Your task to perform on an android device: allow notifications from all sites in the chrome app Image 0: 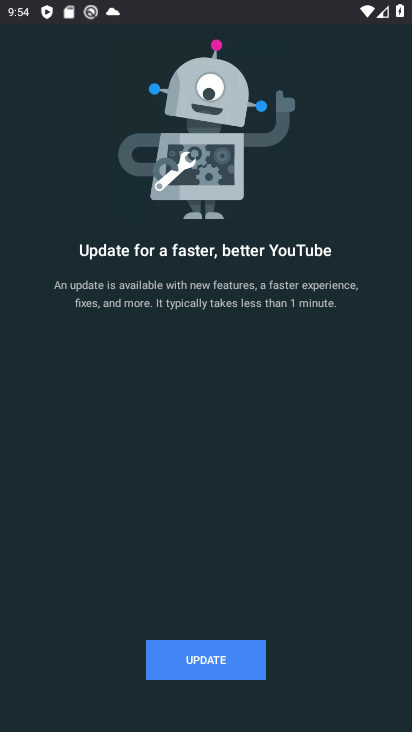
Step 0: press home button
Your task to perform on an android device: allow notifications from all sites in the chrome app Image 1: 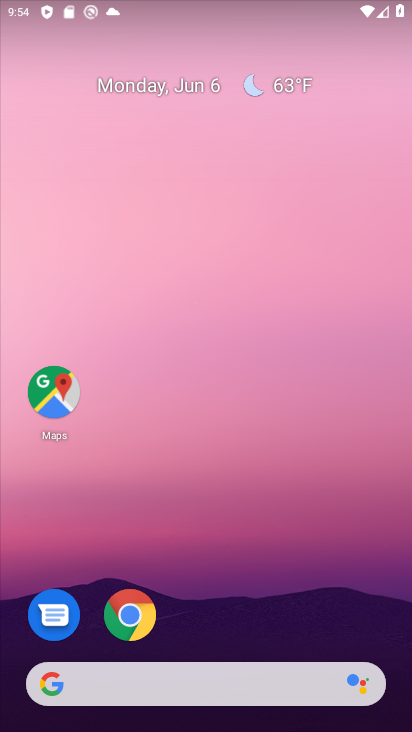
Step 1: click (126, 612)
Your task to perform on an android device: allow notifications from all sites in the chrome app Image 2: 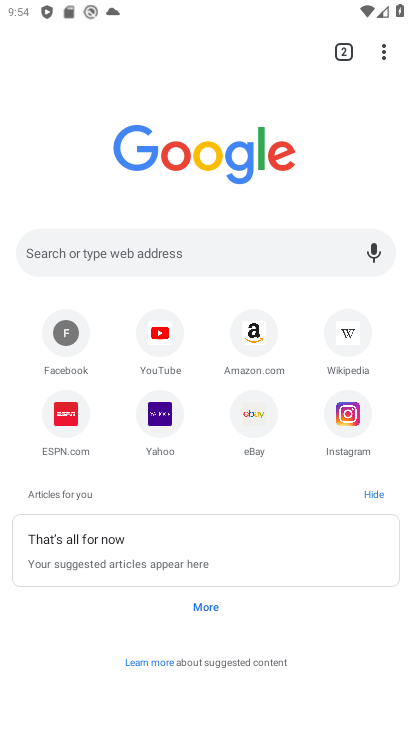
Step 2: click (383, 52)
Your task to perform on an android device: allow notifications from all sites in the chrome app Image 3: 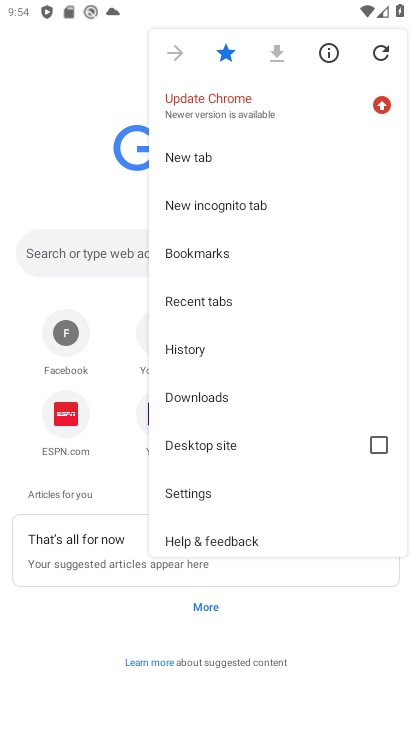
Step 3: click (221, 488)
Your task to perform on an android device: allow notifications from all sites in the chrome app Image 4: 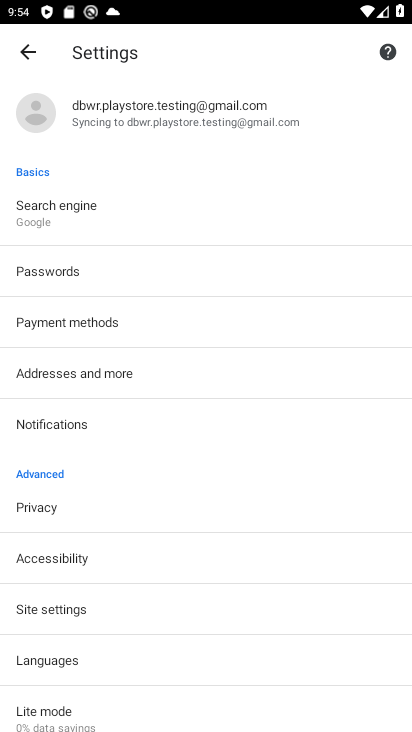
Step 4: click (108, 611)
Your task to perform on an android device: allow notifications from all sites in the chrome app Image 5: 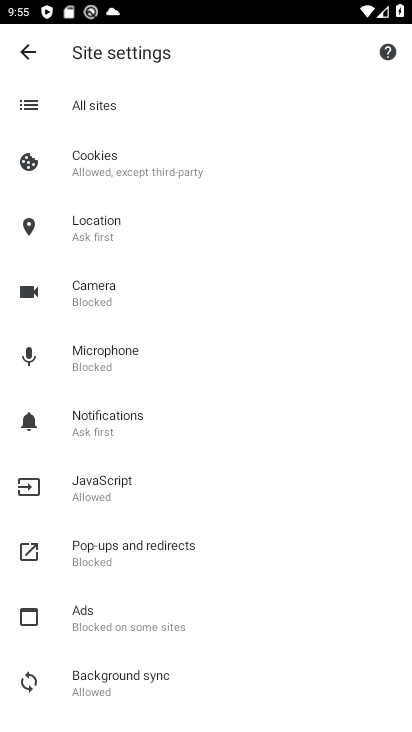
Step 5: click (129, 92)
Your task to perform on an android device: allow notifications from all sites in the chrome app Image 6: 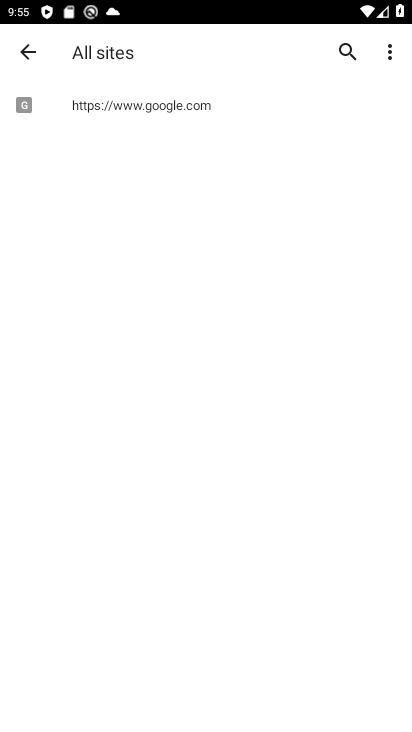
Step 6: click (156, 104)
Your task to perform on an android device: allow notifications from all sites in the chrome app Image 7: 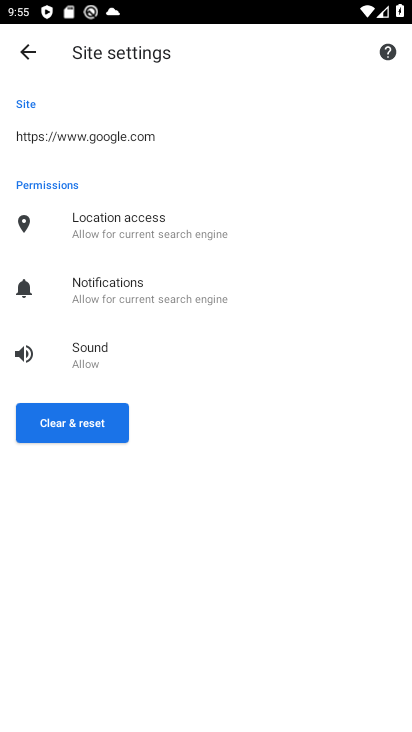
Step 7: task complete